Your task to perform on an android device: manage bookmarks in the chrome app Image 0: 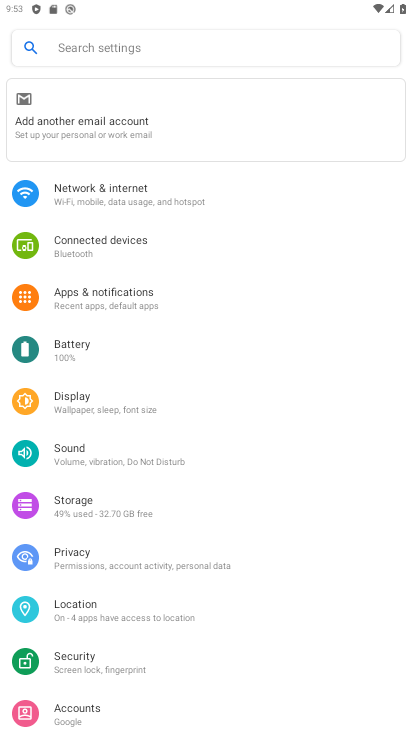
Step 0: press home button
Your task to perform on an android device: manage bookmarks in the chrome app Image 1: 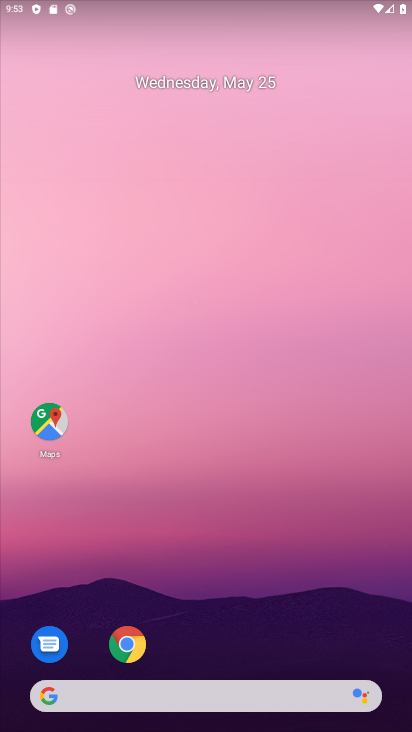
Step 1: drag from (237, 622) to (273, 59)
Your task to perform on an android device: manage bookmarks in the chrome app Image 2: 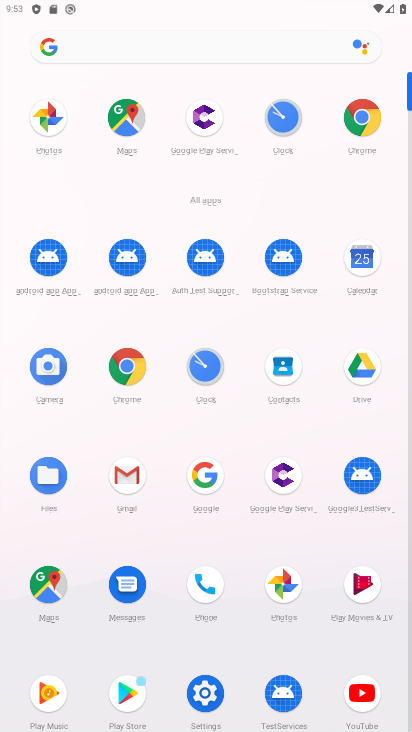
Step 2: click (126, 363)
Your task to perform on an android device: manage bookmarks in the chrome app Image 3: 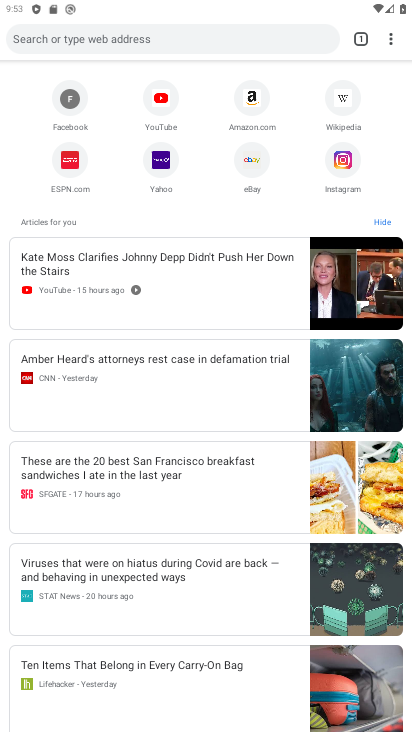
Step 3: click (393, 43)
Your task to perform on an android device: manage bookmarks in the chrome app Image 4: 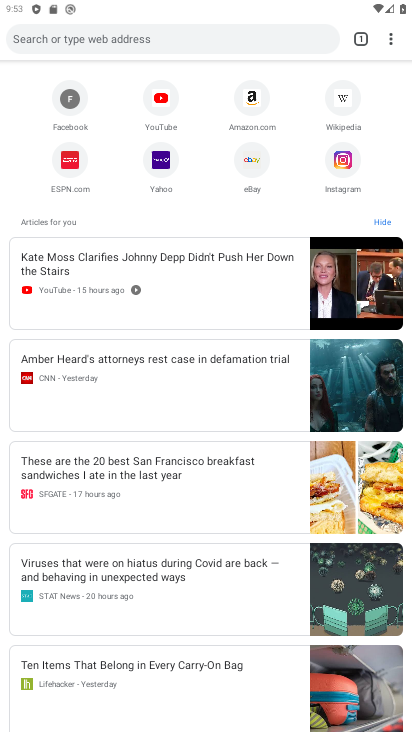
Step 4: click (393, 43)
Your task to perform on an android device: manage bookmarks in the chrome app Image 5: 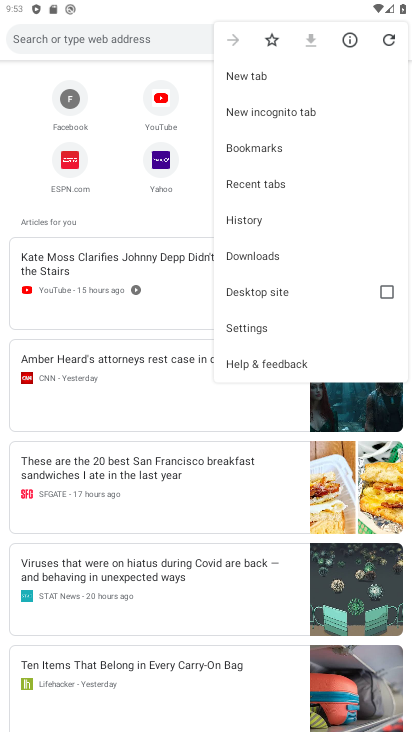
Step 5: click (255, 151)
Your task to perform on an android device: manage bookmarks in the chrome app Image 6: 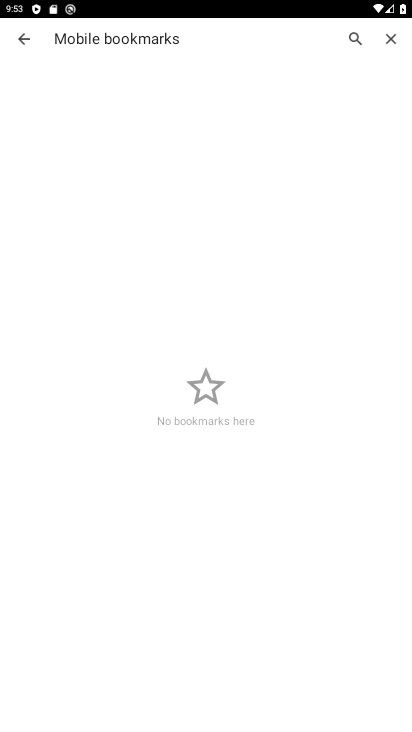
Step 6: click (382, 46)
Your task to perform on an android device: manage bookmarks in the chrome app Image 7: 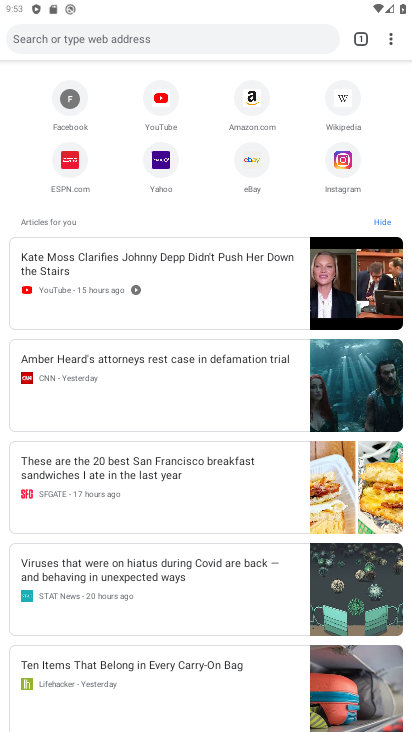
Step 7: click (391, 37)
Your task to perform on an android device: manage bookmarks in the chrome app Image 8: 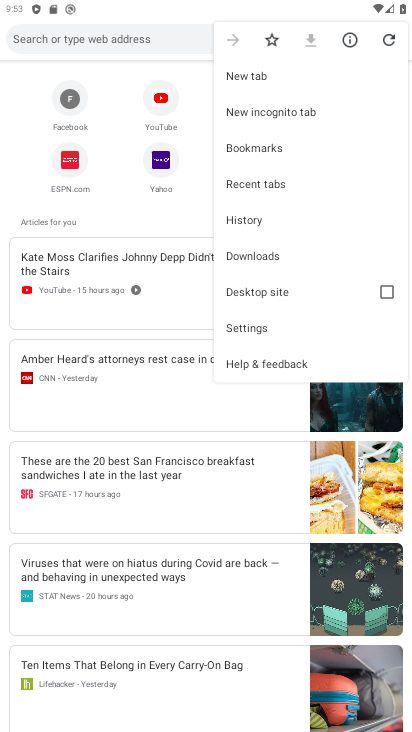
Step 8: click (266, 43)
Your task to perform on an android device: manage bookmarks in the chrome app Image 9: 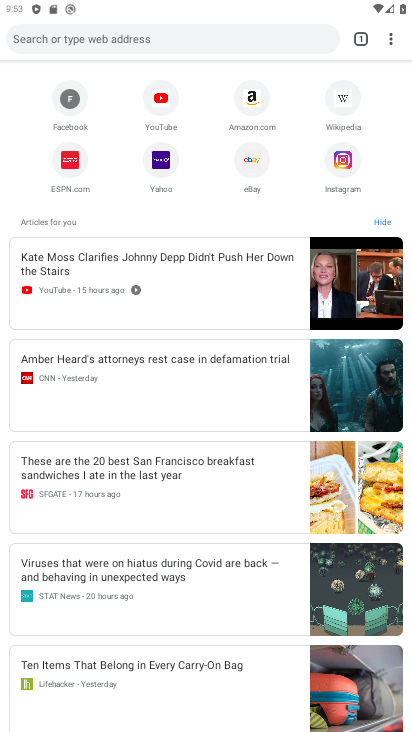
Step 9: click (382, 39)
Your task to perform on an android device: manage bookmarks in the chrome app Image 10: 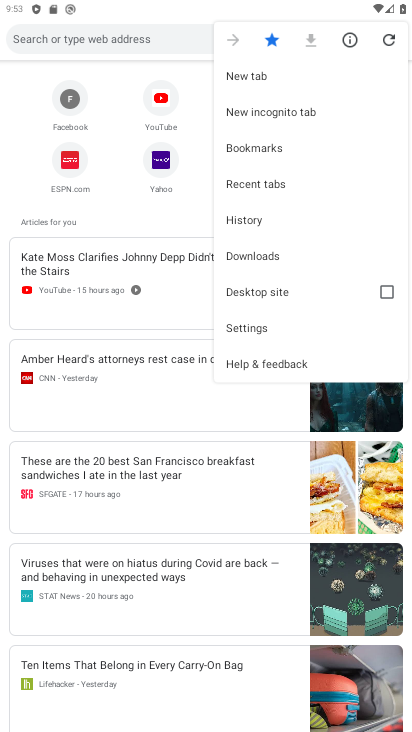
Step 10: task complete